Your task to perform on an android device: Find coffee shops on Maps Image 0: 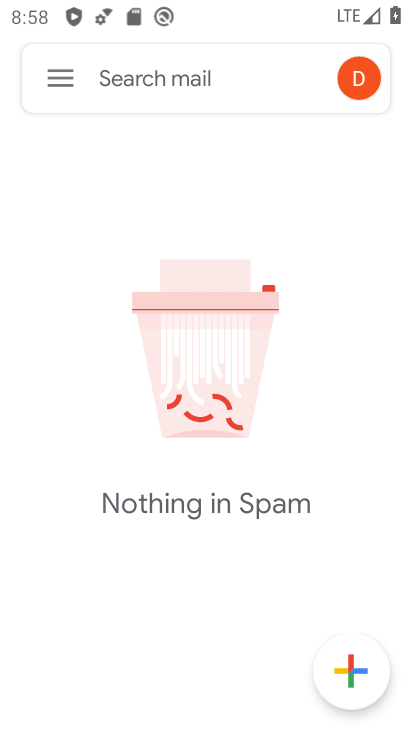
Step 0: press home button
Your task to perform on an android device: Find coffee shops on Maps Image 1: 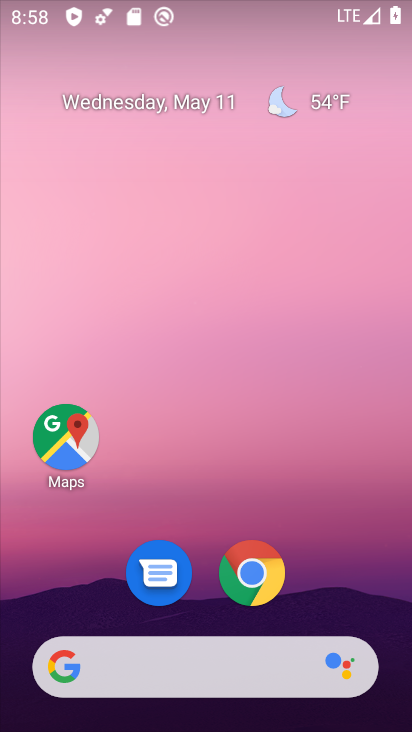
Step 1: drag from (136, 685) to (221, 20)
Your task to perform on an android device: Find coffee shops on Maps Image 2: 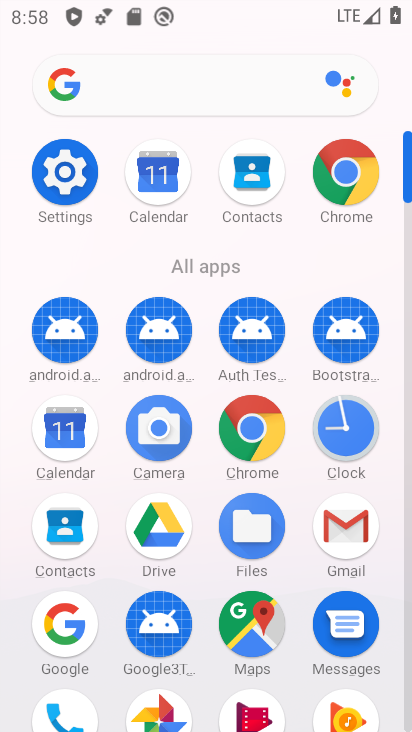
Step 2: click (252, 629)
Your task to perform on an android device: Find coffee shops on Maps Image 3: 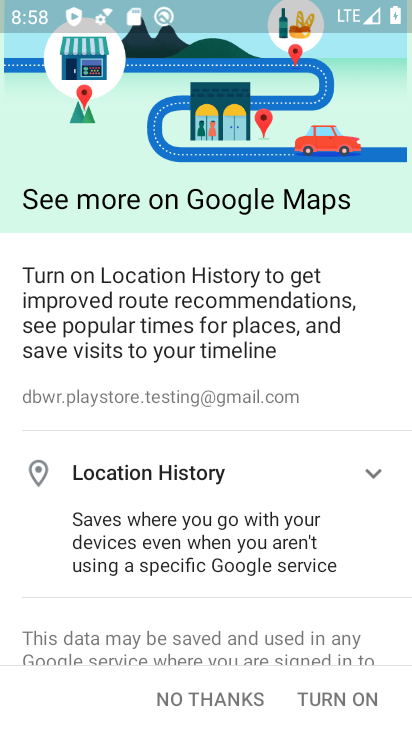
Step 3: click (217, 701)
Your task to perform on an android device: Find coffee shops on Maps Image 4: 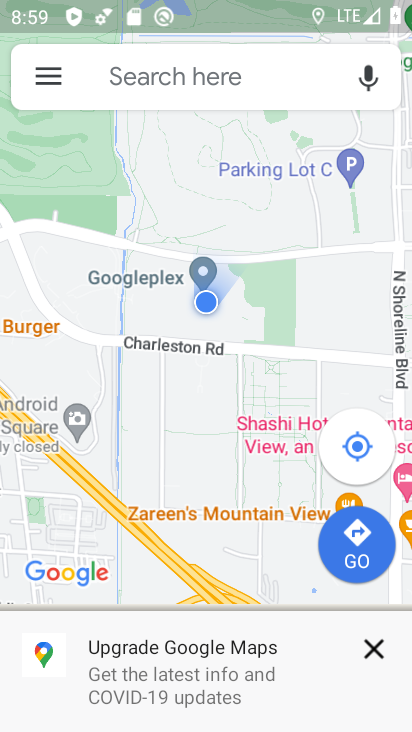
Step 4: click (187, 86)
Your task to perform on an android device: Find coffee shops on Maps Image 5: 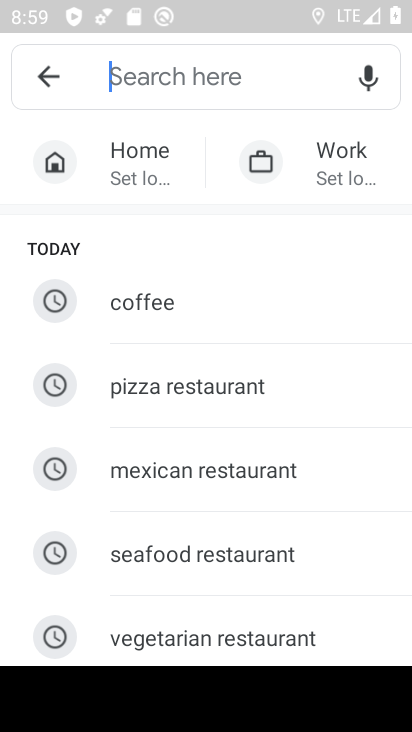
Step 5: type "coffee shops"
Your task to perform on an android device: Find coffee shops on Maps Image 6: 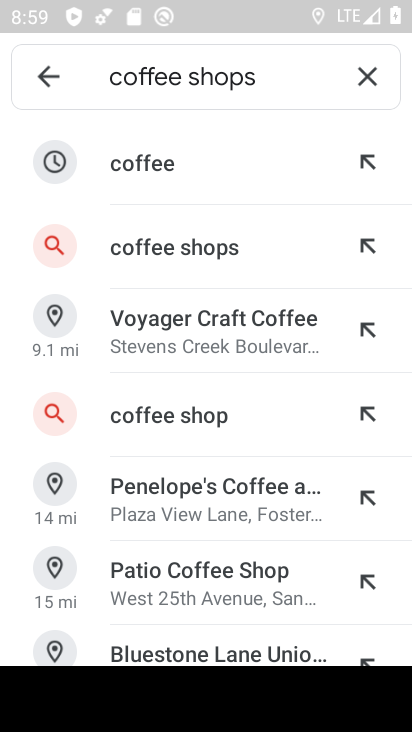
Step 6: click (253, 238)
Your task to perform on an android device: Find coffee shops on Maps Image 7: 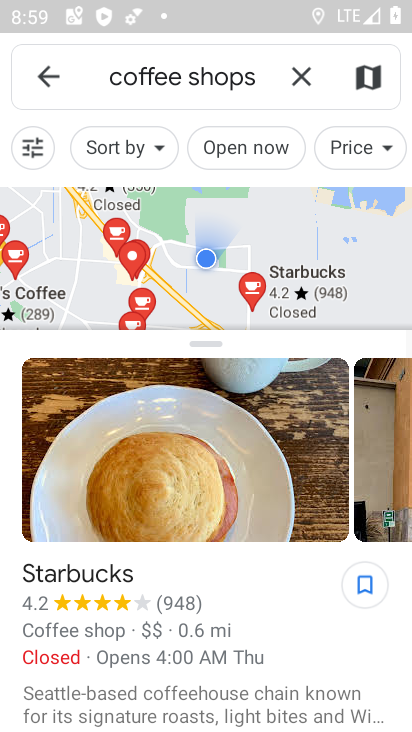
Step 7: task complete